Your task to perform on an android device: turn off location Image 0: 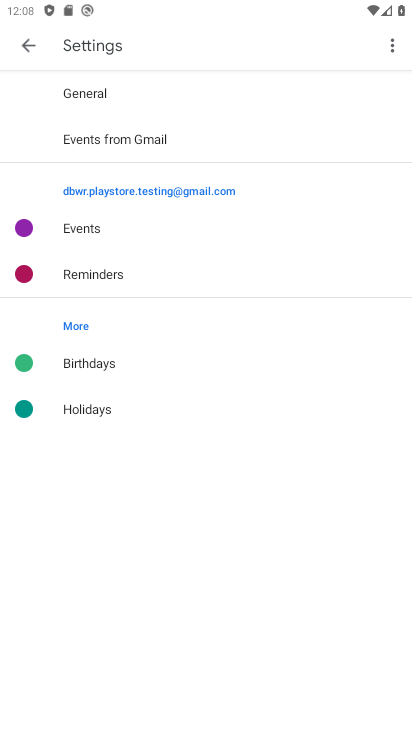
Step 0: press home button
Your task to perform on an android device: turn off location Image 1: 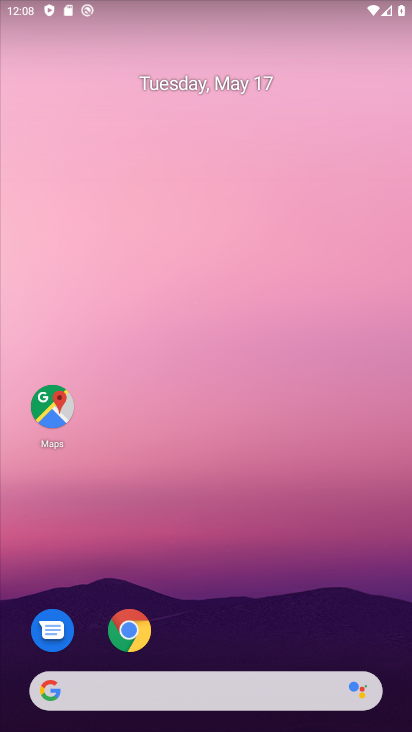
Step 1: drag from (224, 555) to (290, 145)
Your task to perform on an android device: turn off location Image 2: 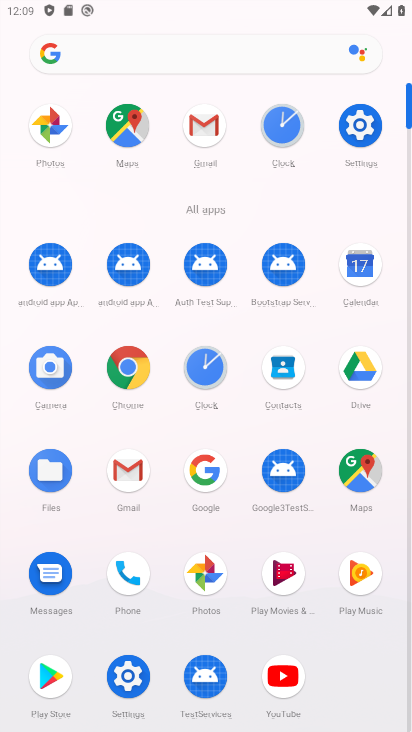
Step 2: click (123, 678)
Your task to perform on an android device: turn off location Image 3: 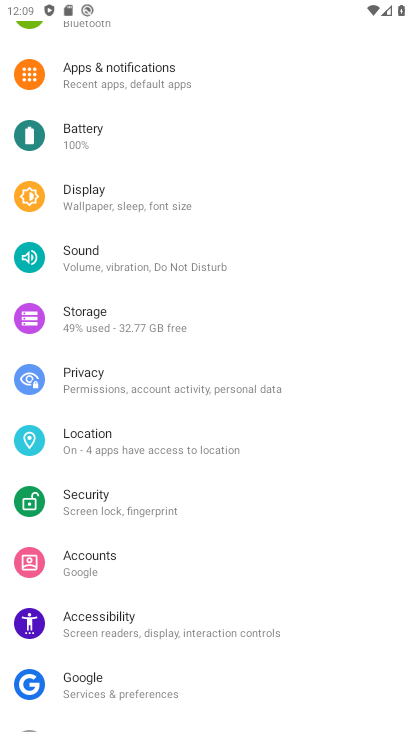
Step 3: click (110, 450)
Your task to perform on an android device: turn off location Image 4: 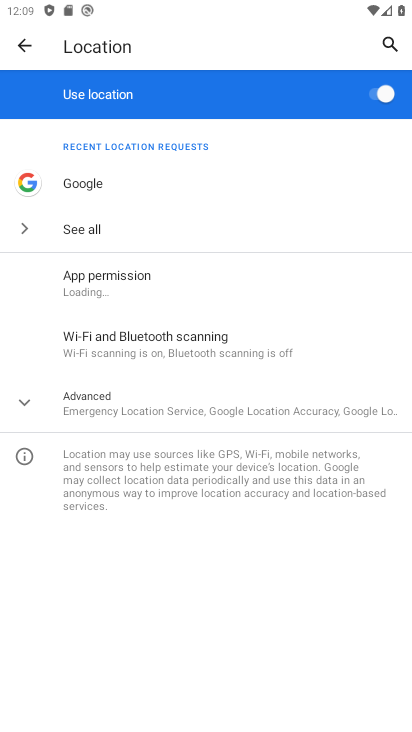
Step 4: click (376, 84)
Your task to perform on an android device: turn off location Image 5: 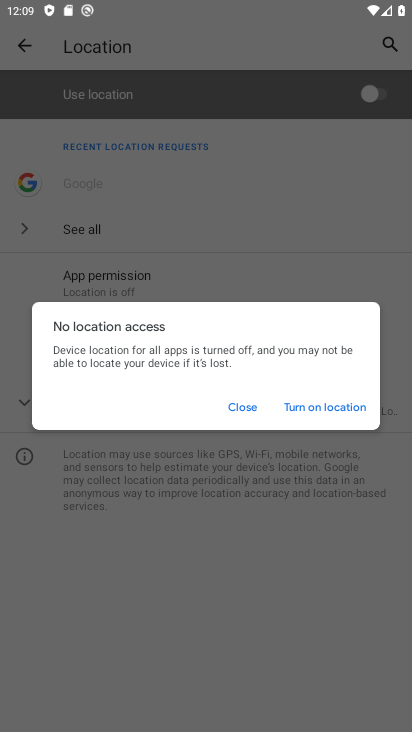
Step 5: task complete